Your task to perform on an android device: Open the calendar app, open the side menu, and click the "Day" option Image 0: 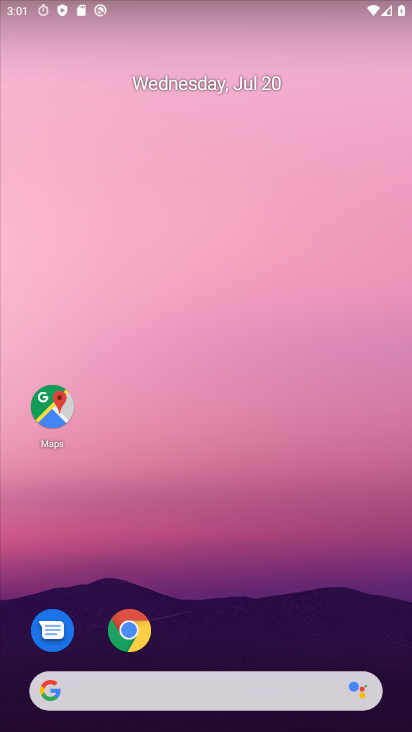
Step 0: click (268, 165)
Your task to perform on an android device: Open the calendar app, open the side menu, and click the "Day" option Image 1: 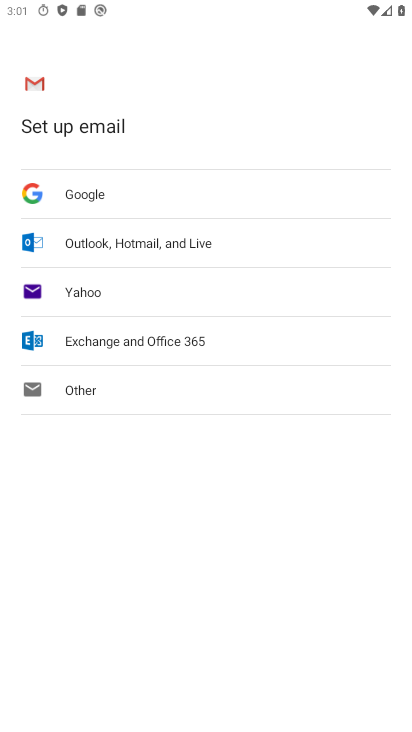
Step 1: press back button
Your task to perform on an android device: Open the calendar app, open the side menu, and click the "Day" option Image 2: 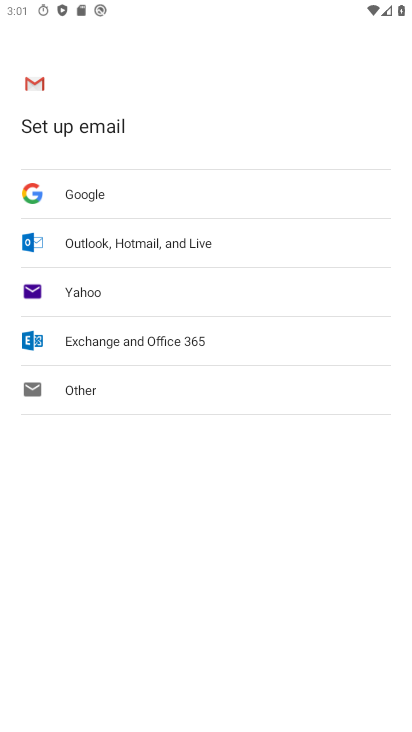
Step 2: press back button
Your task to perform on an android device: Open the calendar app, open the side menu, and click the "Day" option Image 3: 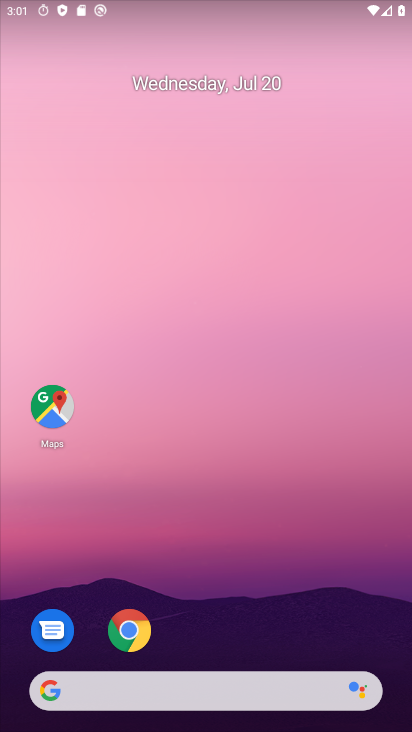
Step 3: drag from (178, 608) to (157, 321)
Your task to perform on an android device: Open the calendar app, open the side menu, and click the "Day" option Image 4: 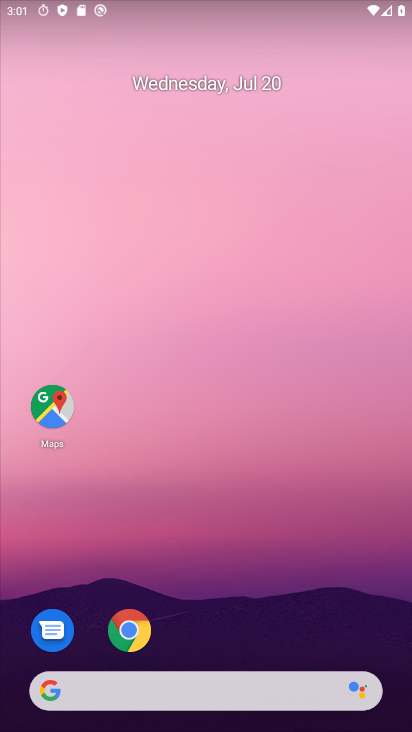
Step 4: drag from (184, 422) to (181, 140)
Your task to perform on an android device: Open the calendar app, open the side menu, and click the "Day" option Image 5: 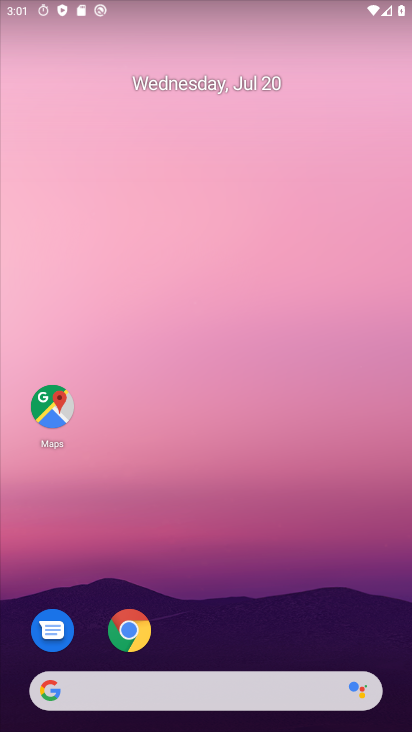
Step 5: drag from (266, 423) to (226, 82)
Your task to perform on an android device: Open the calendar app, open the side menu, and click the "Day" option Image 6: 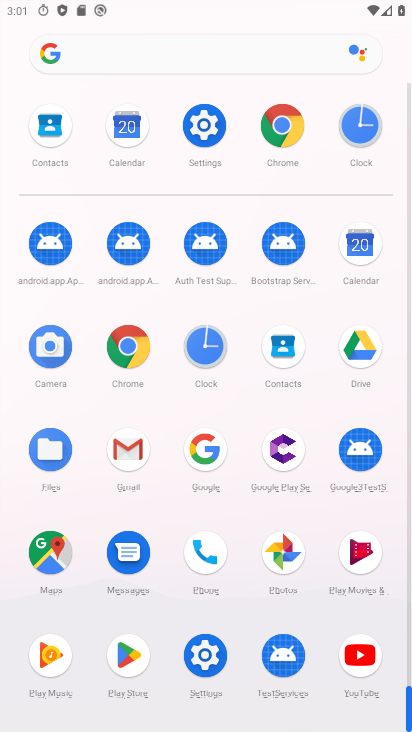
Step 6: click (356, 243)
Your task to perform on an android device: Open the calendar app, open the side menu, and click the "Day" option Image 7: 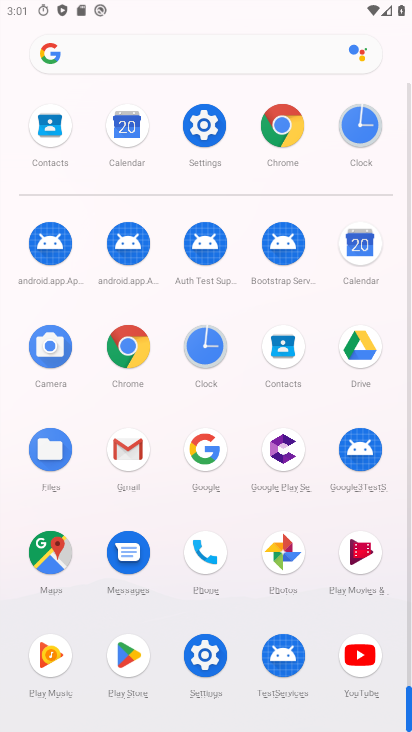
Step 7: click (357, 243)
Your task to perform on an android device: Open the calendar app, open the side menu, and click the "Day" option Image 8: 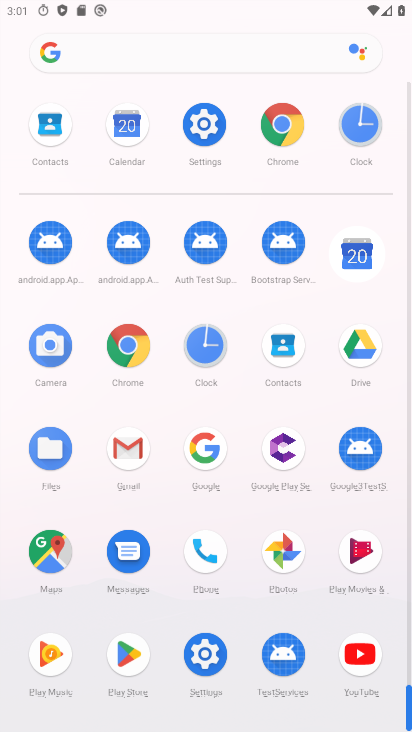
Step 8: click (357, 248)
Your task to perform on an android device: Open the calendar app, open the side menu, and click the "Day" option Image 9: 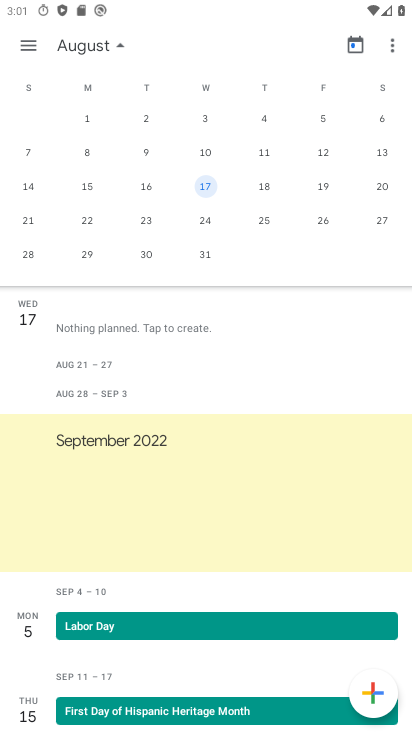
Step 9: click (37, 40)
Your task to perform on an android device: Open the calendar app, open the side menu, and click the "Day" option Image 10: 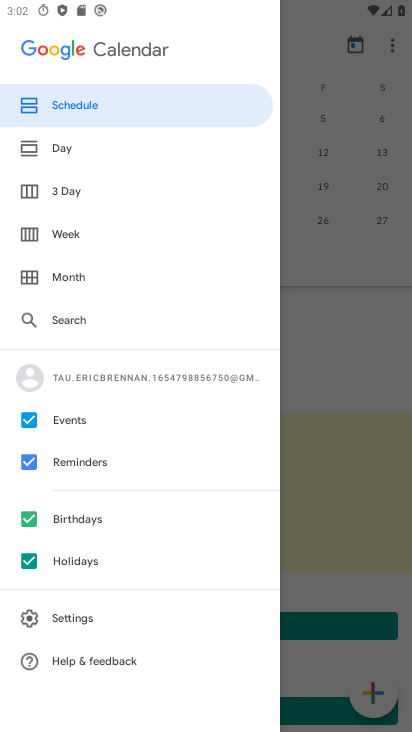
Step 10: click (64, 148)
Your task to perform on an android device: Open the calendar app, open the side menu, and click the "Day" option Image 11: 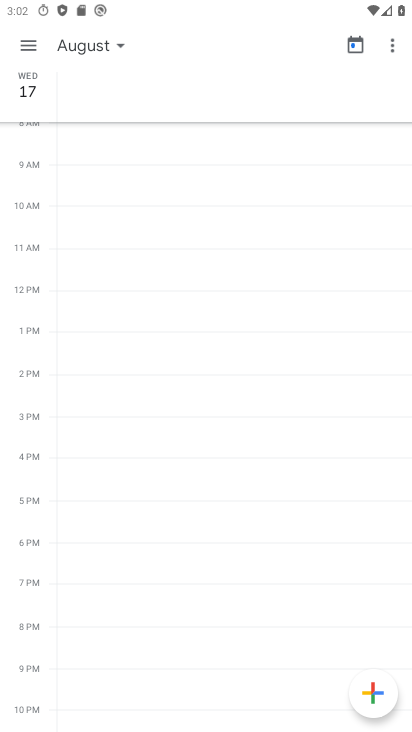
Step 11: click (39, 42)
Your task to perform on an android device: Open the calendar app, open the side menu, and click the "Day" option Image 12: 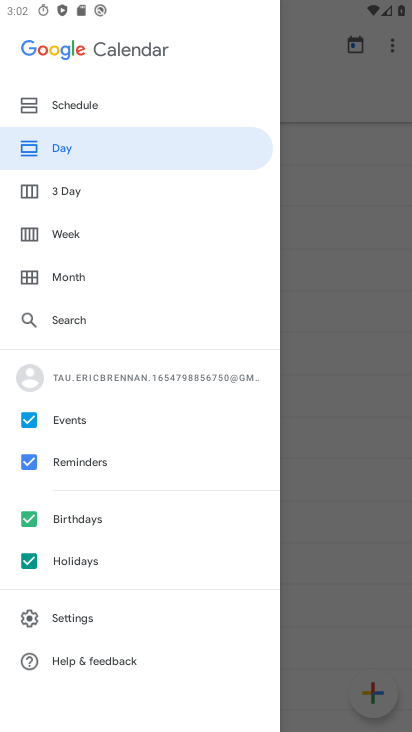
Step 12: task complete